Your task to perform on an android device: change keyboard looks Image 0: 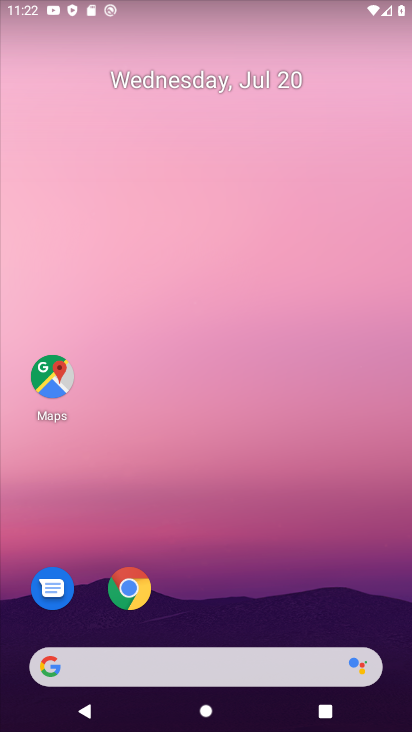
Step 0: press home button
Your task to perform on an android device: change keyboard looks Image 1: 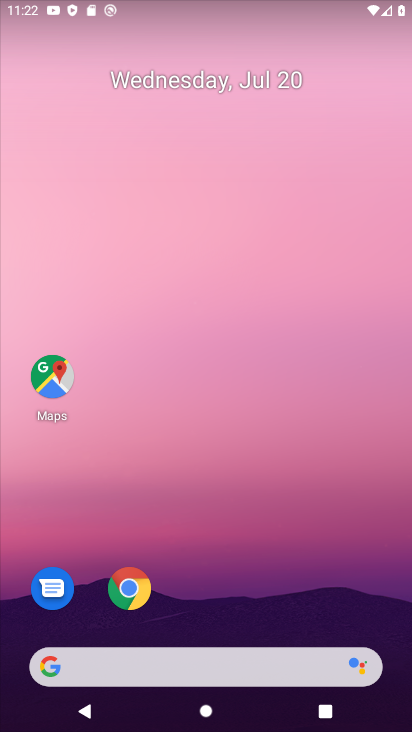
Step 1: drag from (312, 573) to (321, 97)
Your task to perform on an android device: change keyboard looks Image 2: 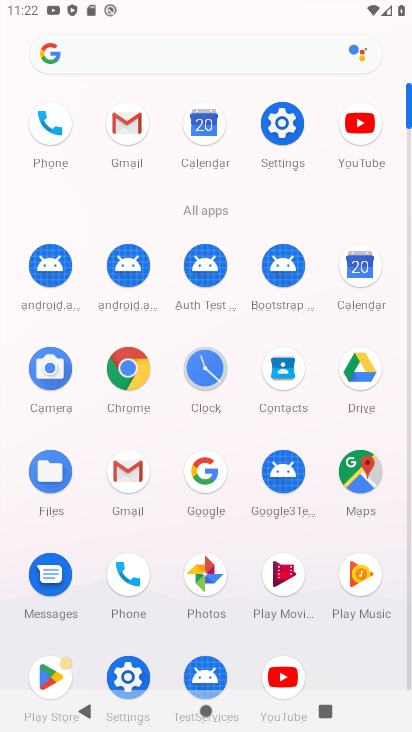
Step 2: click (279, 119)
Your task to perform on an android device: change keyboard looks Image 3: 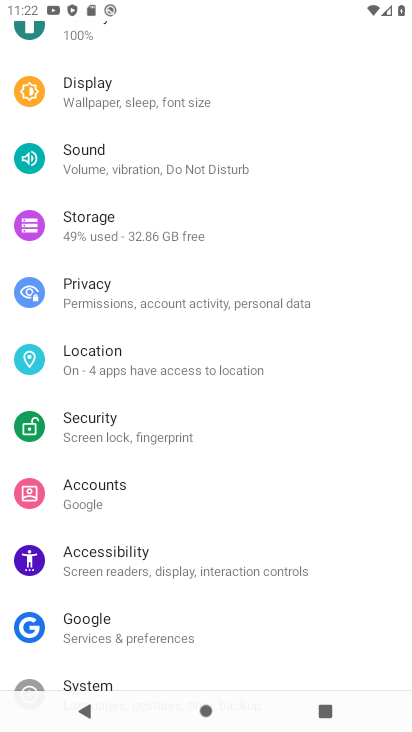
Step 3: drag from (104, 663) to (188, 291)
Your task to perform on an android device: change keyboard looks Image 4: 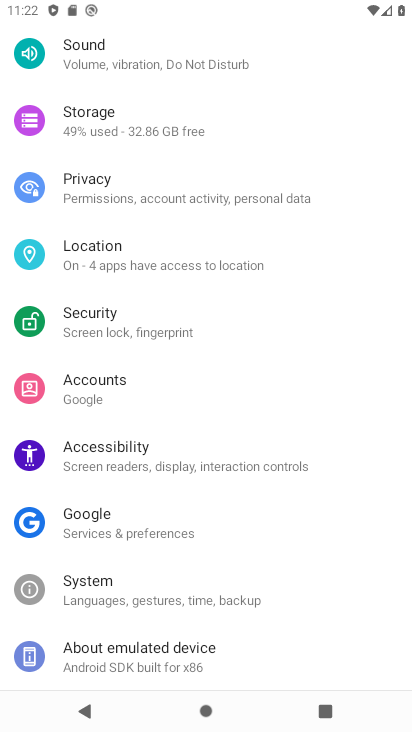
Step 4: click (101, 585)
Your task to perform on an android device: change keyboard looks Image 5: 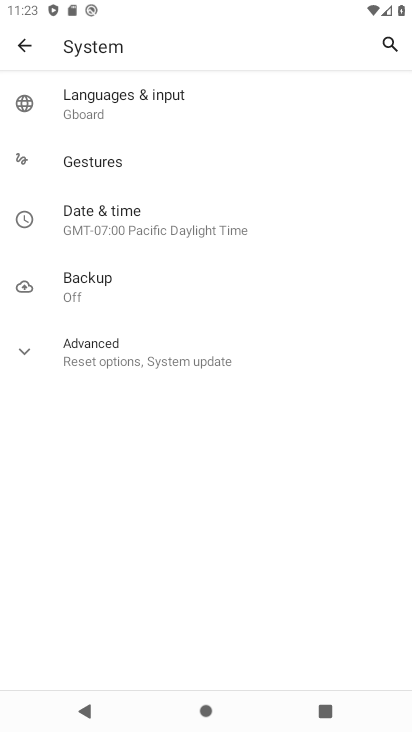
Step 5: click (95, 109)
Your task to perform on an android device: change keyboard looks Image 6: 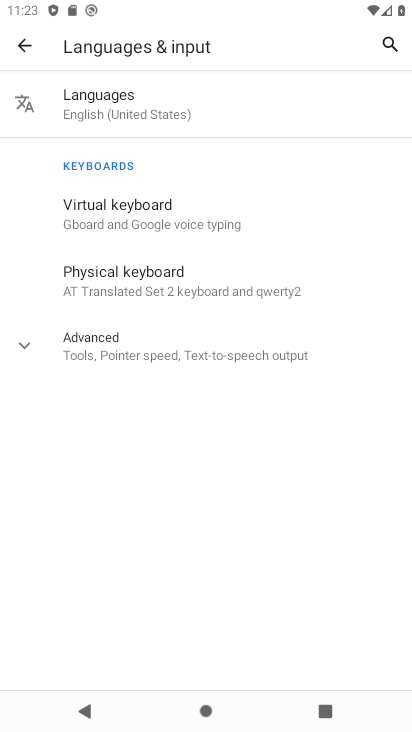
Step 6: click (108, 214)
Your task to perform on an android device: change keyboard looks Image 7: 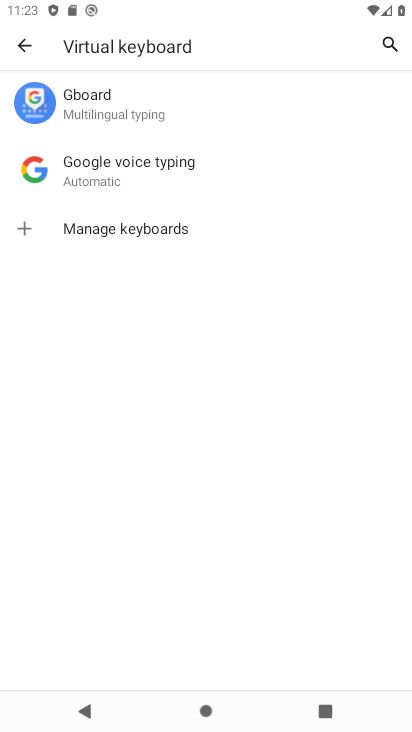
Step 7: click (63, 108)
Your task to perform on an android device: change keyboard looks Image 8: 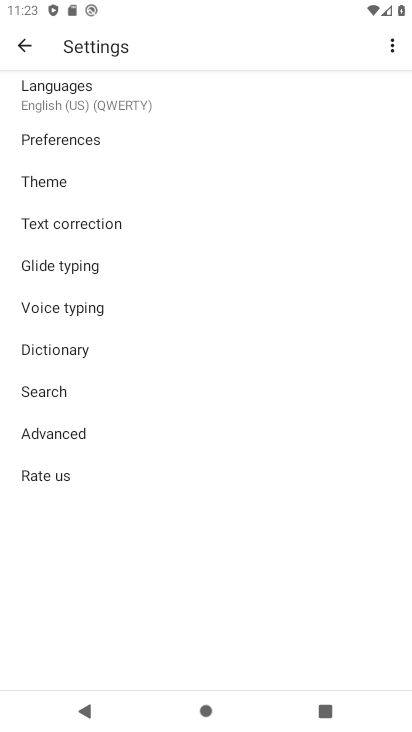
Step 8: click (55, 181)
Your task to perform on an android device: change keyboard looks Image 9: 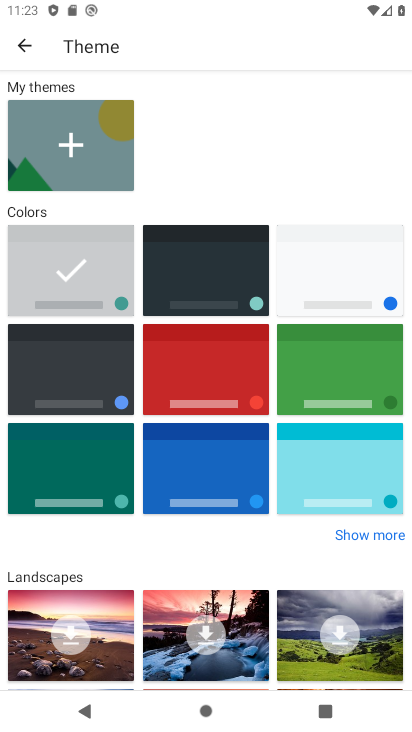
Step 9: click (190, 473)
Your task to perform on an android device: change keyboard looks Image 10: 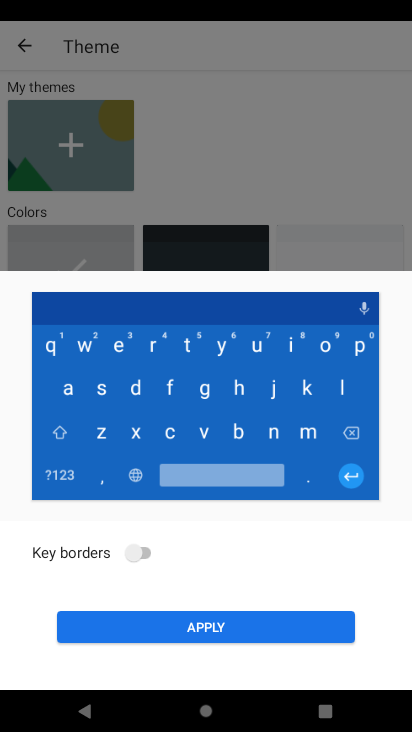
Step 10: click (209, 625)
Your task to perform on an android device: change keyboard looks Image 11: 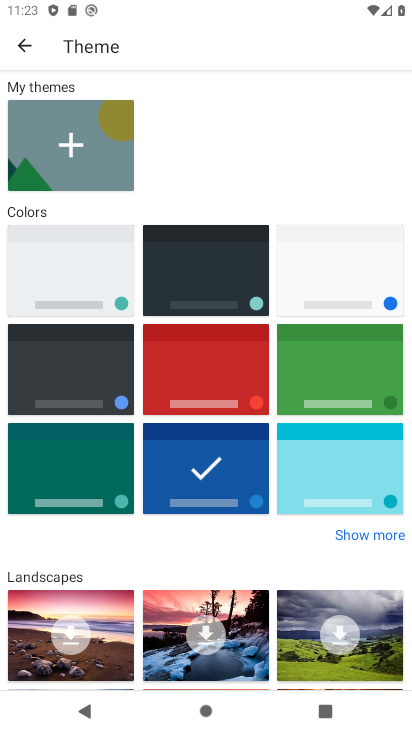
Step 11: task complete